Your task to perform on an android device: open wifi settings Image 0: 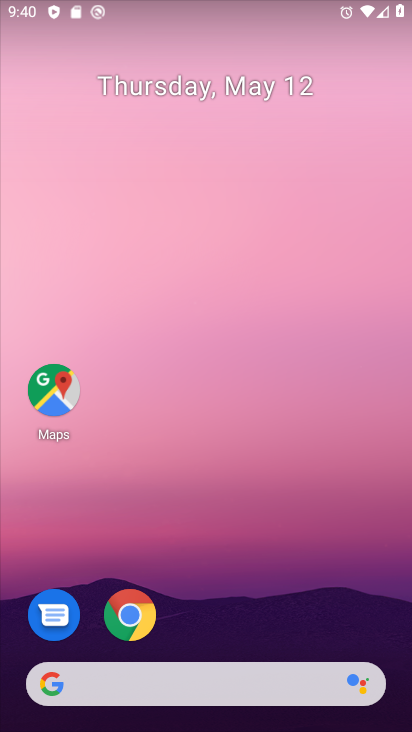
Step 0: drag from (288, 586) to (276, 60)
Your task to perform on an android device: open wifi settings Image 1: 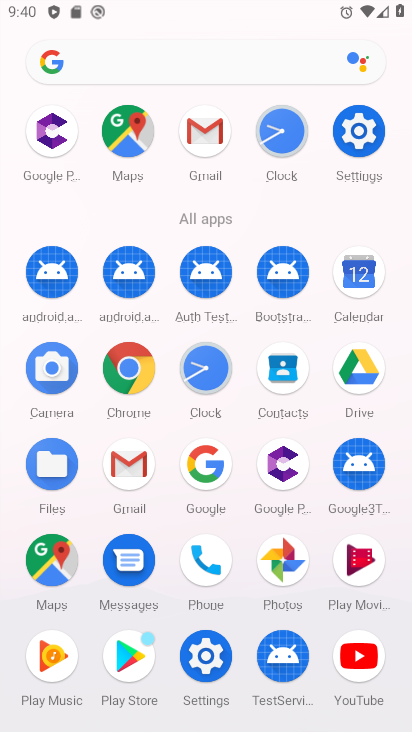
Step 1: click (366, 125)
Your task to perform on an android device: open wifi settings Image 2: 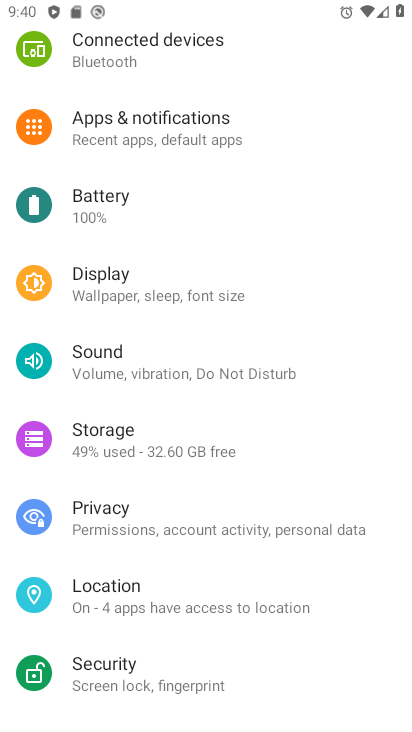
Step 2: drag from (251, 183) to (280, 678)
Your task to perform on an android device: open wifi settings Image 3: 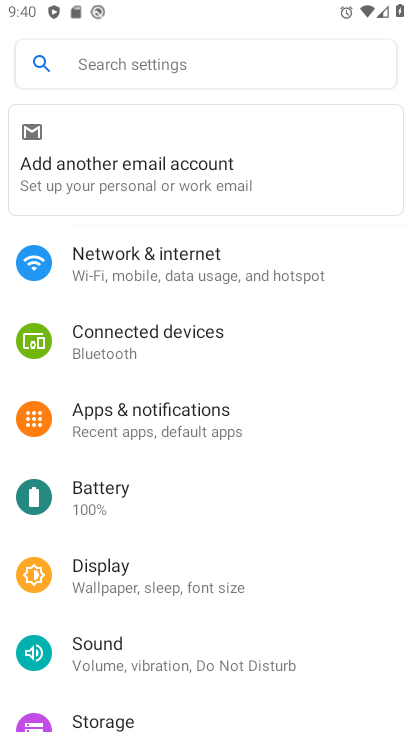
Step 3: click (208, 271)
Your task to perform on an android device: open wifi settings Image 4: 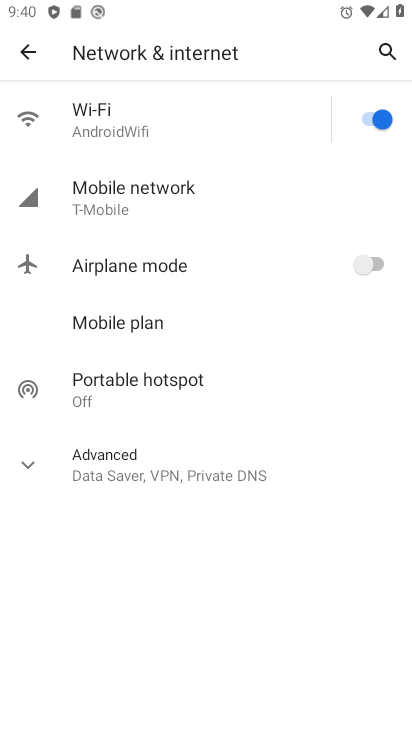
Step 4: click (190, 125)
Your task to perform on an android device: open wifi settings Image 5: 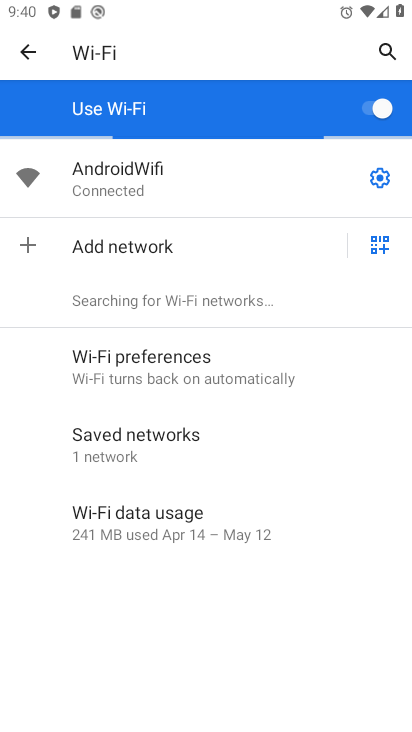
Step 5: click (380, 178)
Your task to perform on an android device: open wifi settings Image 6: 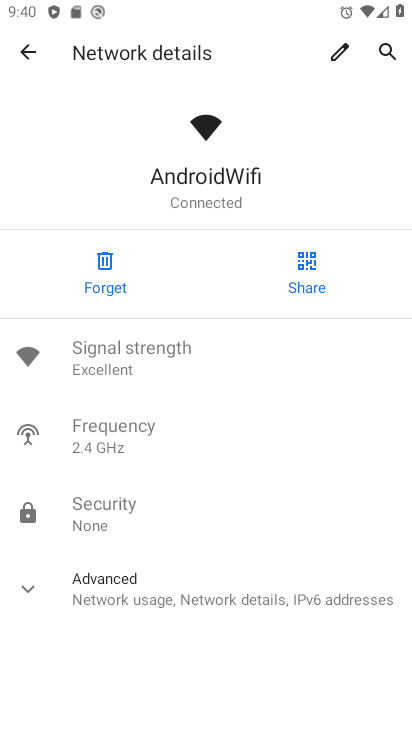
Step 6: task complete